Your task to perform on an android device: Go to Yahoo.com Image 0: 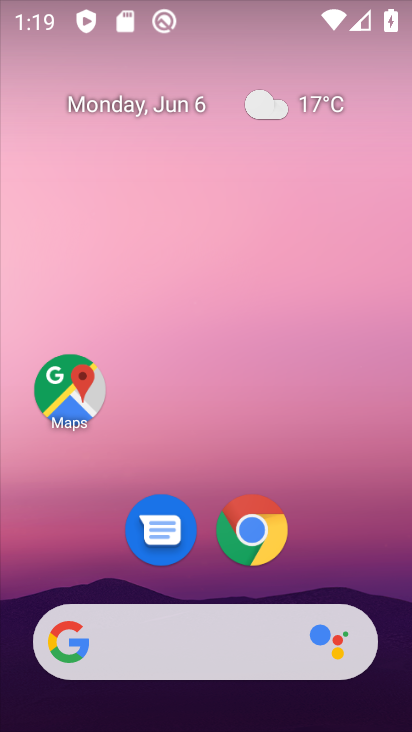
Step 0: click (248, 535)
Your task to perform on an android device: Go to Yahoo.com Image 1: 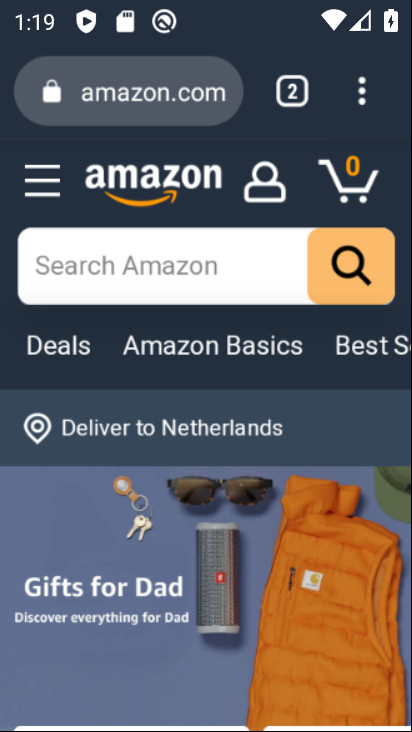
Step 1: click (365, 74)
Your task to perform on an android device: Go to Yahoo.com Image 2: 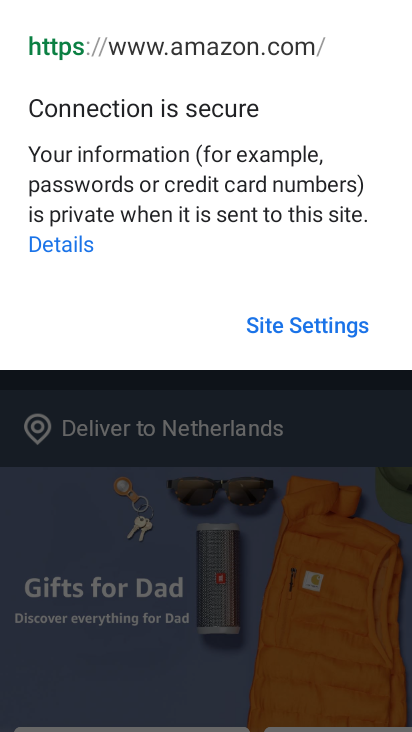
Step 2: press back button
Your task to perform on an android device: Go to Yahoo.com Image 3: 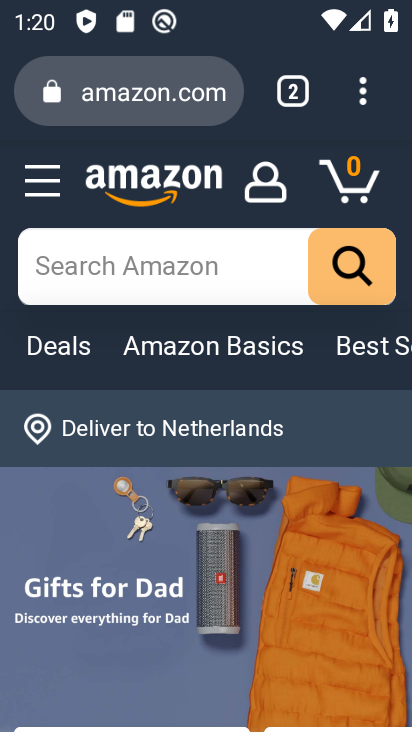
Step 3: click (352, 95)
Your task to perform on an android device: Go to Yahoo.com Image 4: 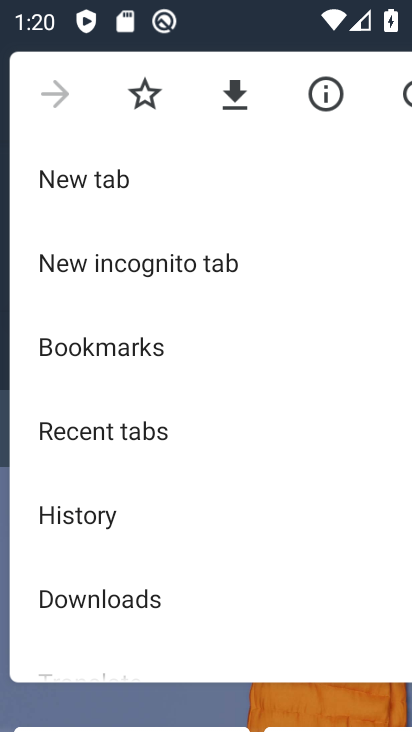
Step 4: click (89, 175)
Your task to perform on an android device: Go to Yahoo.com Image 5: 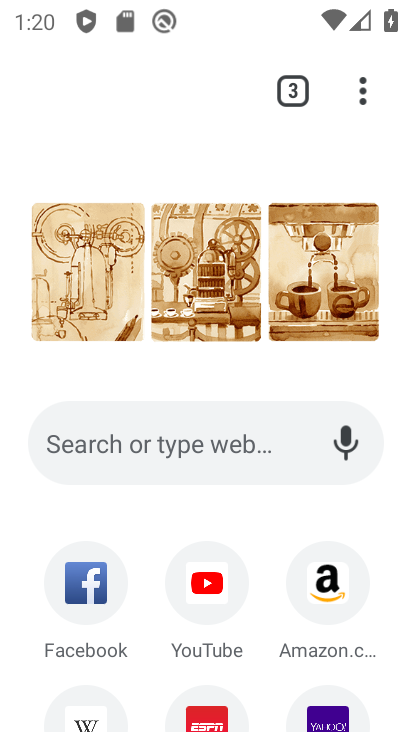
Step 5: drag from (97, 596) to (155, 192)
Your task to perform on an android device: Go to Yahoo.com Image 6: 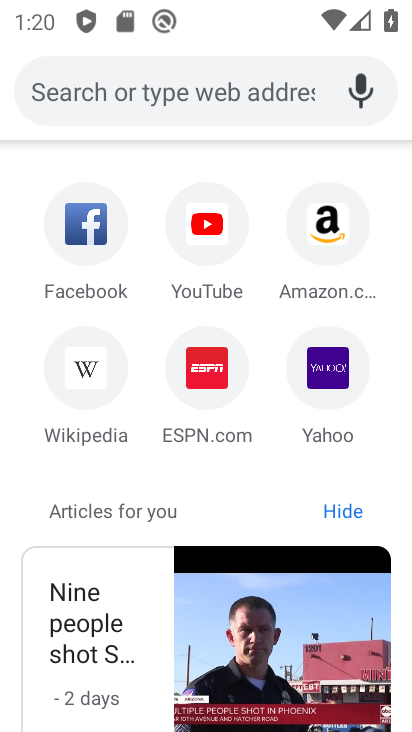
Step 6: click (330, 387)
Your task to perform on an android device: Go to Yahoo.com Image 7: 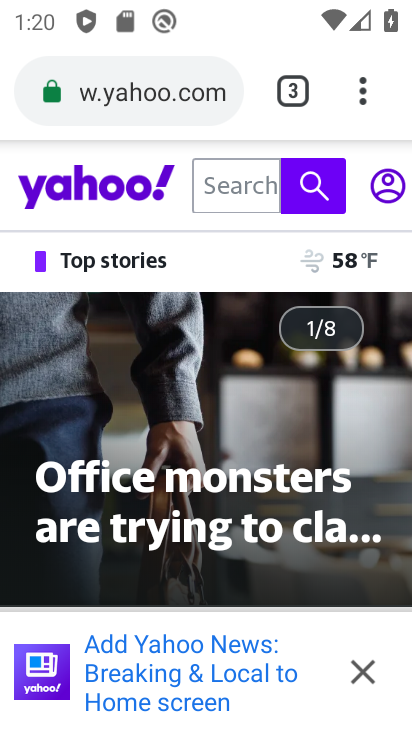
Step 7: task complete